Your task to perform on an android device: Go to Reddit.com Image 0: 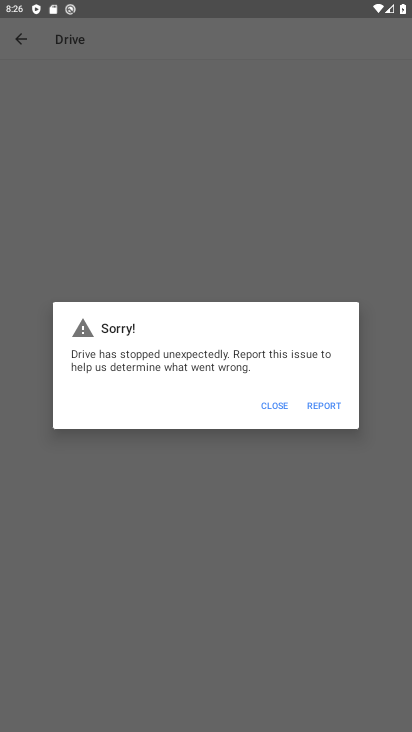
Step 0: press home button
Your task to perform on an android device: Go to Reddit.com Image 1: 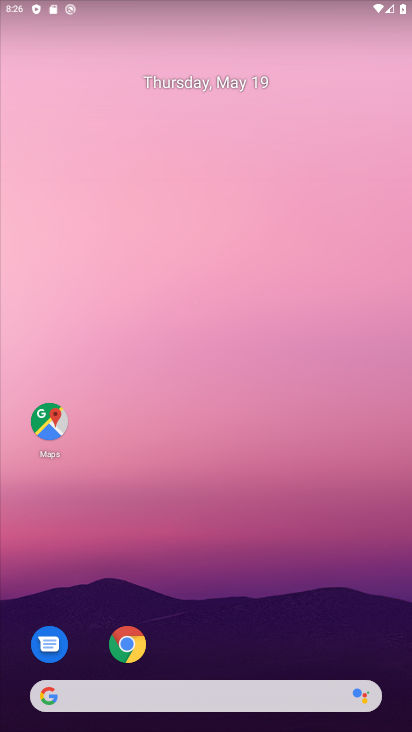
Step 1: click (116, 653)
Your task to perform on an android device: Go to Reddit.com Image 2: 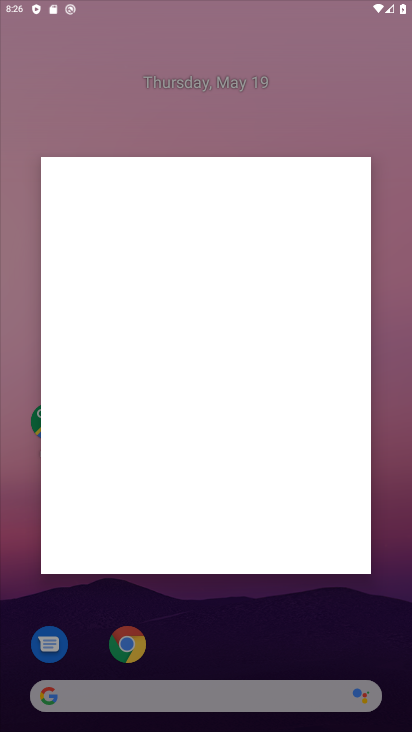
Step 2: click (116, 653)
Your task to perform on an android device: Go to Reddit.com Image 3: 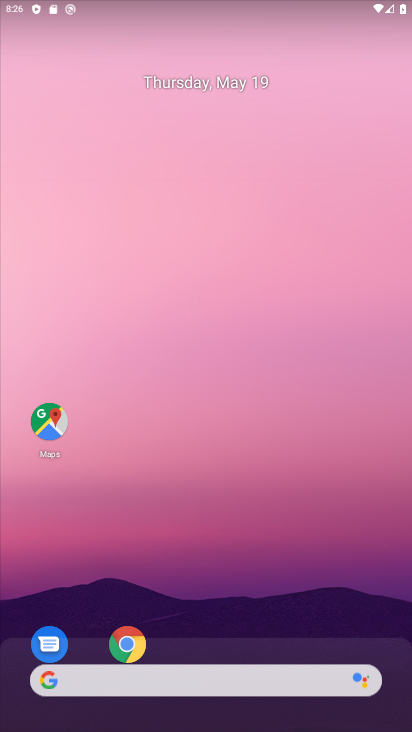
Step 3: click (116, 653)
Your task to perform on an android device: Go to Reddit.com Image 4: 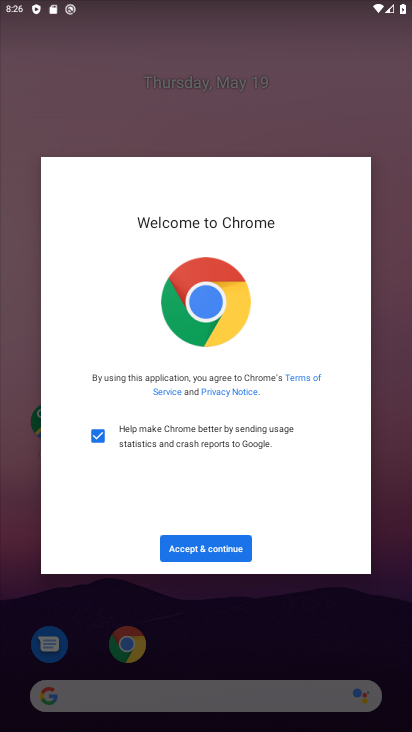
Step 4: click (218, 541)
Your task to perform on an android device: Go to Reddit.com Image 5: 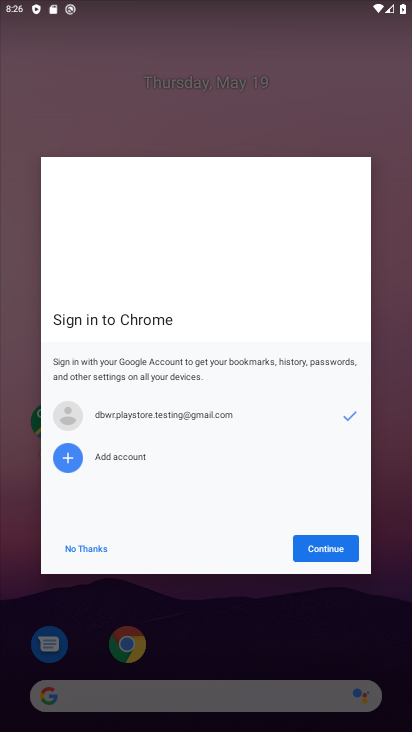
Step 5: click (305, 548)
Your task to perform on an android device: Go to Reddit.com Image 6: 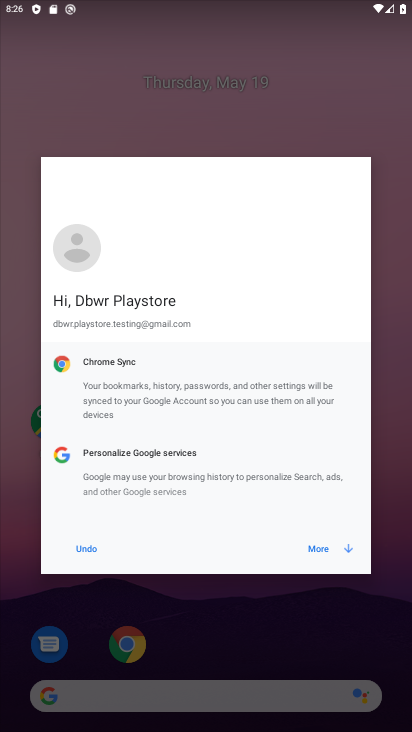
Step 6: click (305, 548)
Your task to perform on an android device: Go to Reddit.com Image 7: 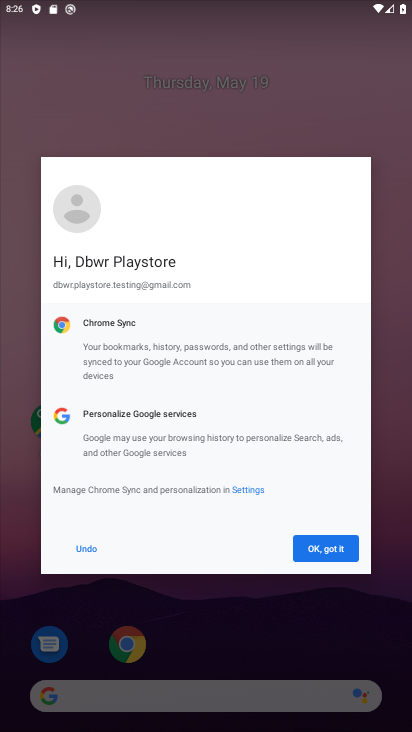
Step 7: click (305, 548)
Your task to perform on an android device: Go to Reddit.com Image 8: 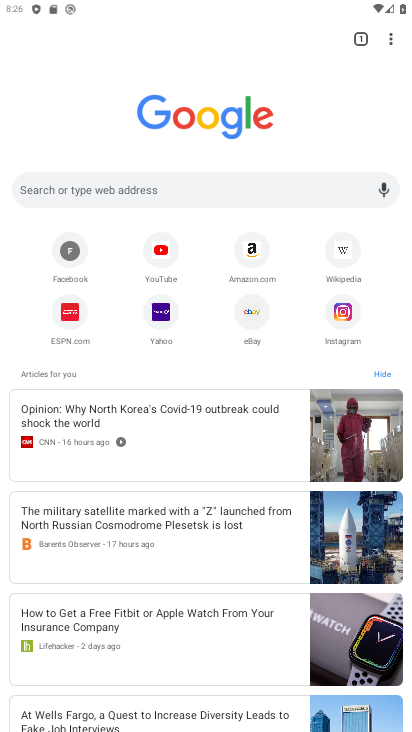
Step 8: click (240, 184)
Your task to perform on an android device: Go to Reddit.com Image 9: 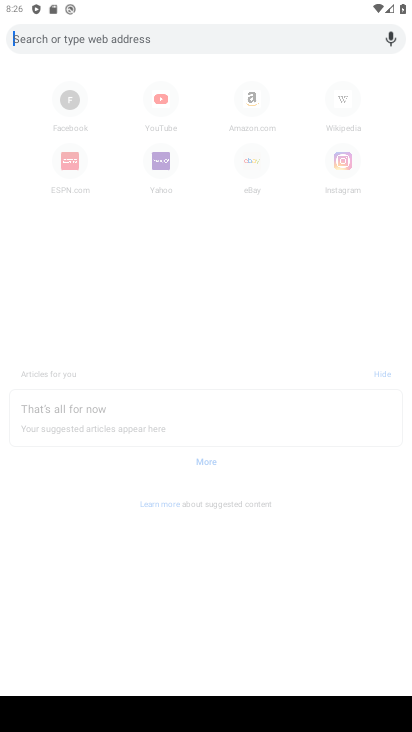
Step 9: type "Reddit.com"
Your task to perform on an android device: Go to Reddit.com Image 10: 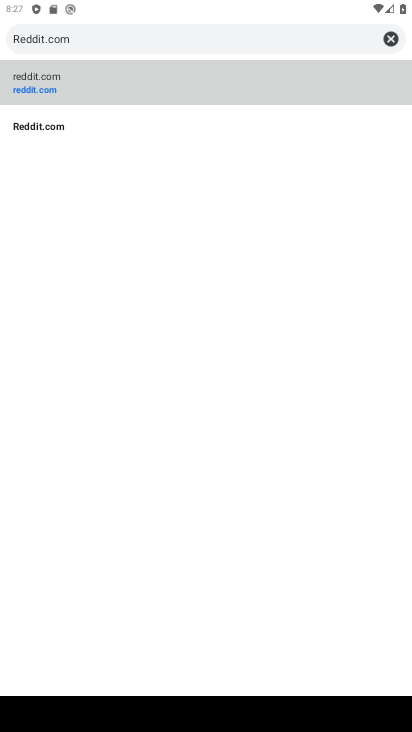
Step 10: click (48, 94)
Your task to perform on an android device: Go to Reddit.com Image 11: 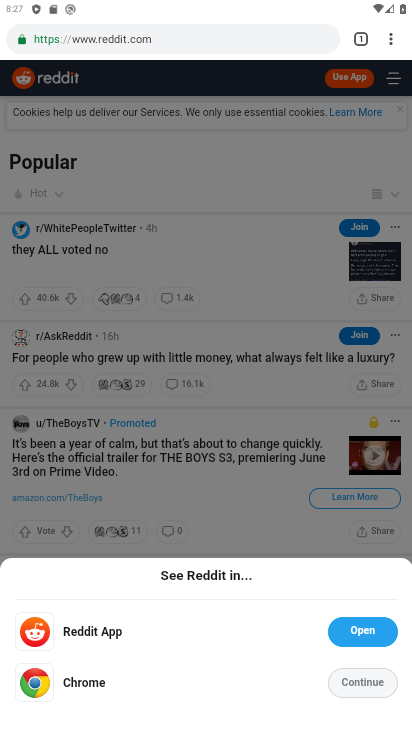
Step 11: click (347, 695)
Your task to perform on an android device: Go to Reddit.com Image 12: 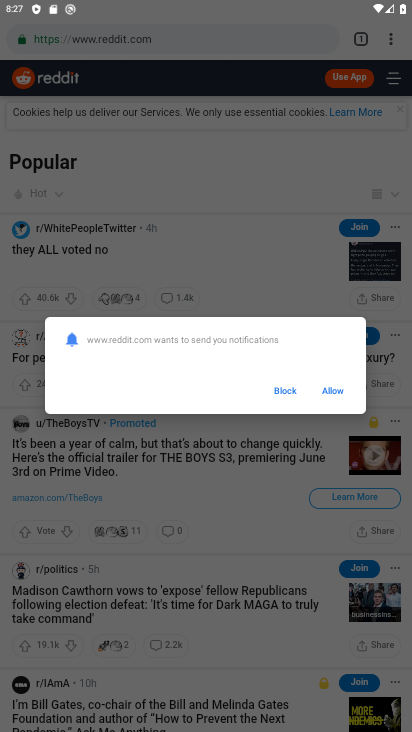
Step 12: click (291, 392)
Your task to perform on an android device: Go to Reddit.com Image 13: 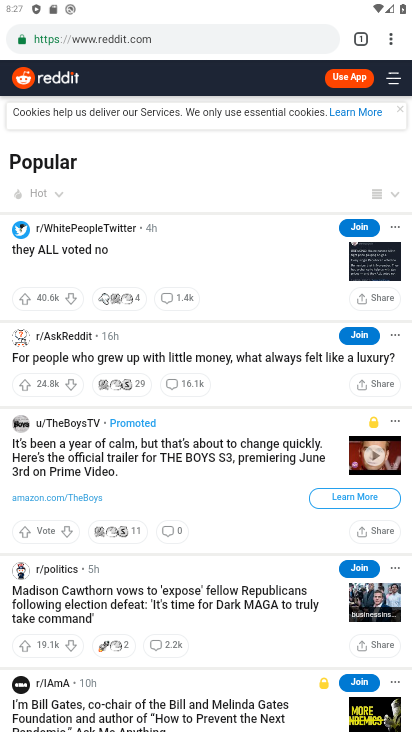
Step 13: task complete